Your task to perform on an android device: Show me productivity apps on the Play Store Image 0: 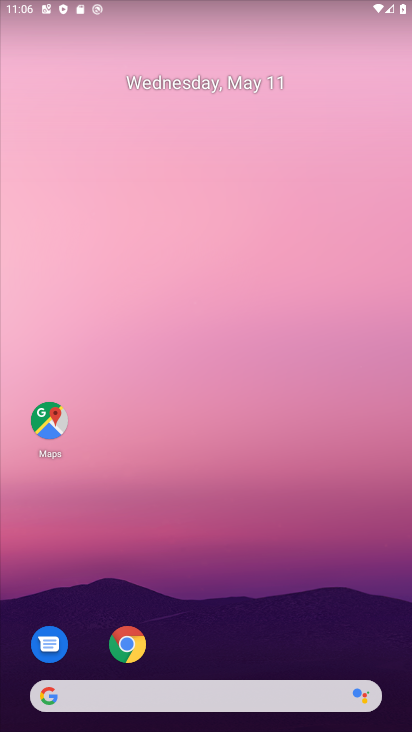
Step 0: drag from (269, 621) to (218, 23)
Your task to perform on an android device: Show me productivity apps on the Play Store Image 1: 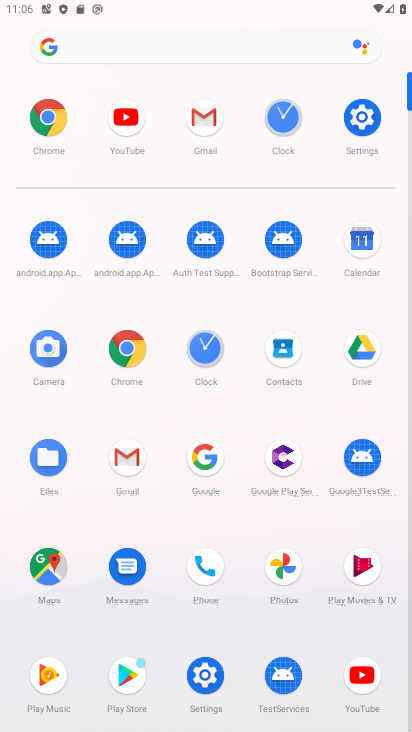
Step 1: click (129, 660)
Your task to perform on an android device: Show me productivity apps on the Play Store Image 2: 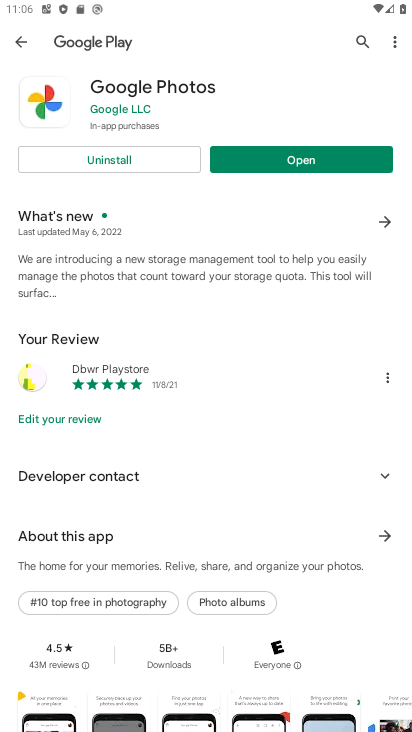
Step 2: click (28, 50)
Your task to perform on an android device: Show me productivity apps on the Play Store Image 3: 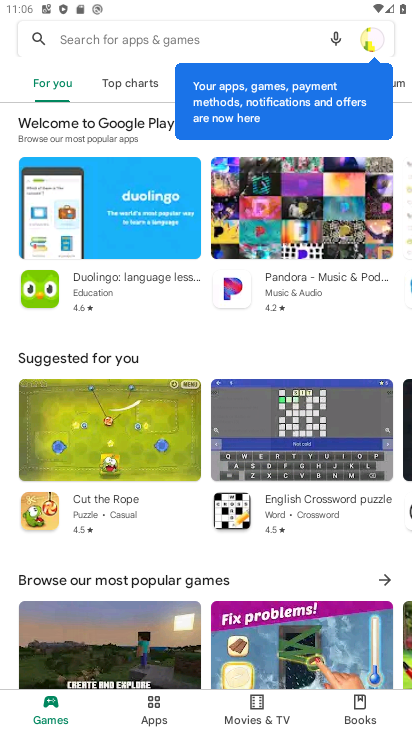
Step 3: click (117, 87)
Your task to perform on an android device: Show me productivity apps on the Play Store Image 4: 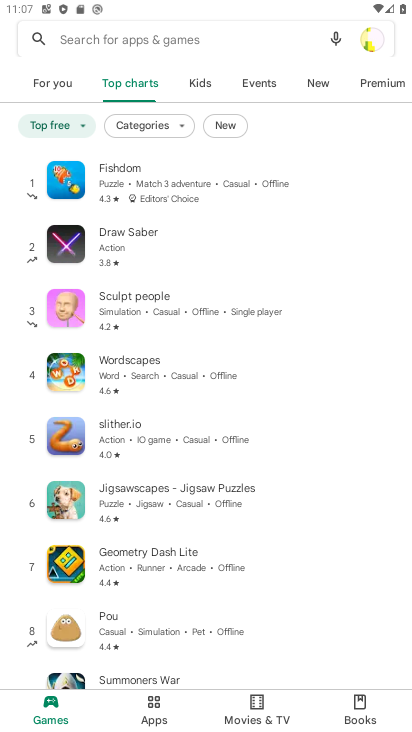
Step 4: click (166, 706)
Your task to perform on an android device: Show me productivity apps on the Play Store Image 5: 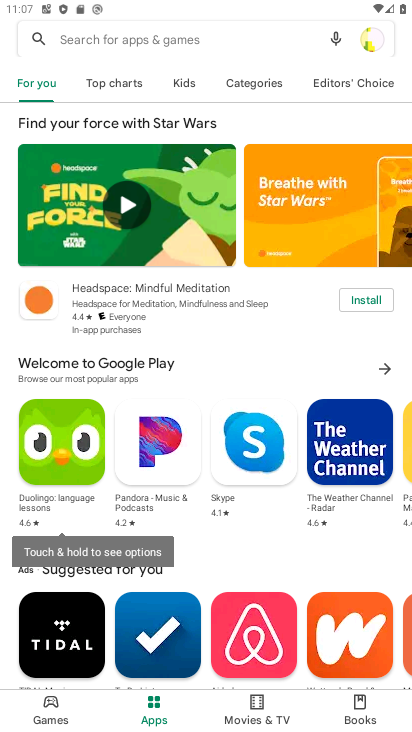
Step 5: click (130, 76)
Your task to perform on an android device: Show me productivity apps on the Play Store Image 6: 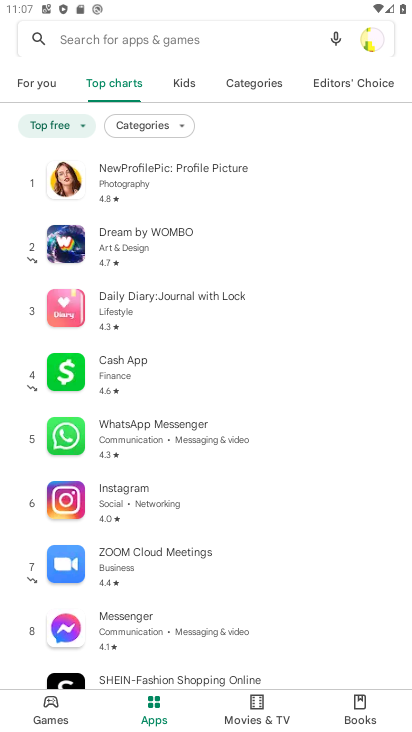
Step 6: click (158, 123)
Your task to perform on an android device: Show me productivity apps on the Play Store Image 7: 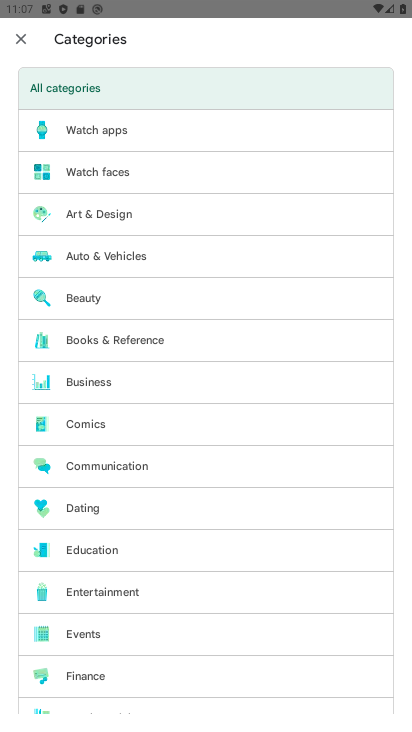
Step 7: drag from (220, 658) to (124, 197)
Your task to perform on an android device: Show me productivity apps on the Play Store Image 8: 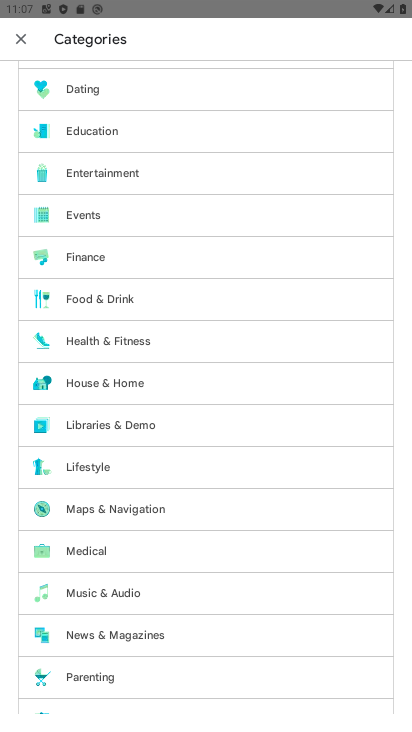
Step 8: drag from (186, 635) to (93, 247)
Your task to perform on an android device: Show me productivity apps on the Play Store Image 9: 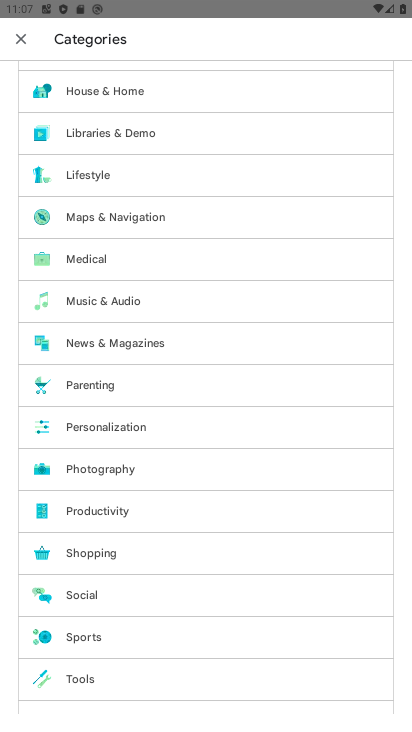
Step 9: click (157, 513)
Your task to perform on an android device: Show me productivity apps on the Play Store Image 10: 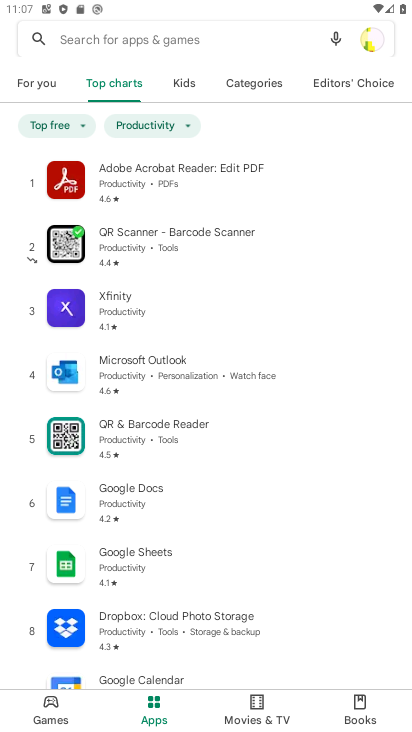
Step 10: task complete